Your task to perform on an android device: Open the map Image 0: 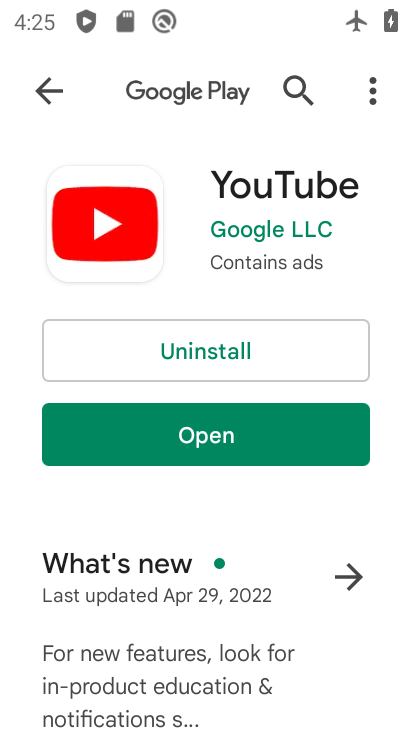
Step 0: press home button
Your task to perform on an android device: Open the map Image 1: 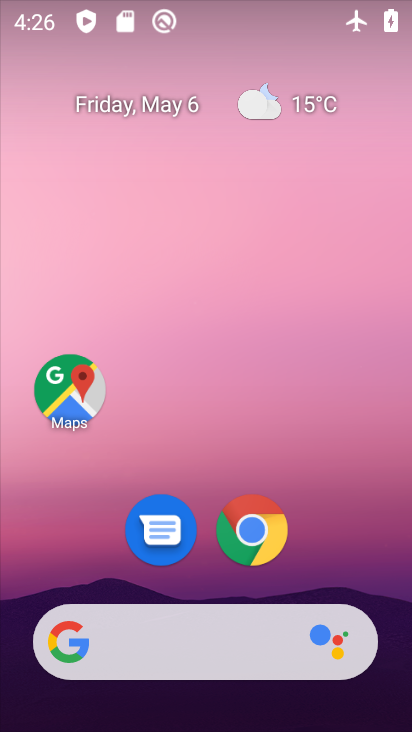
Step 1: click (49, 391)
Your task to perform on an android device: Open the map Image 2: 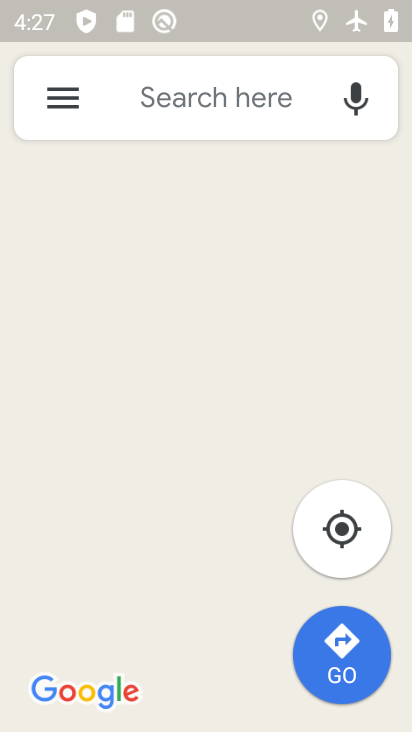
Step 2: task complete